Your task to perform on an android device: turn on improve location accuracy Image 0: 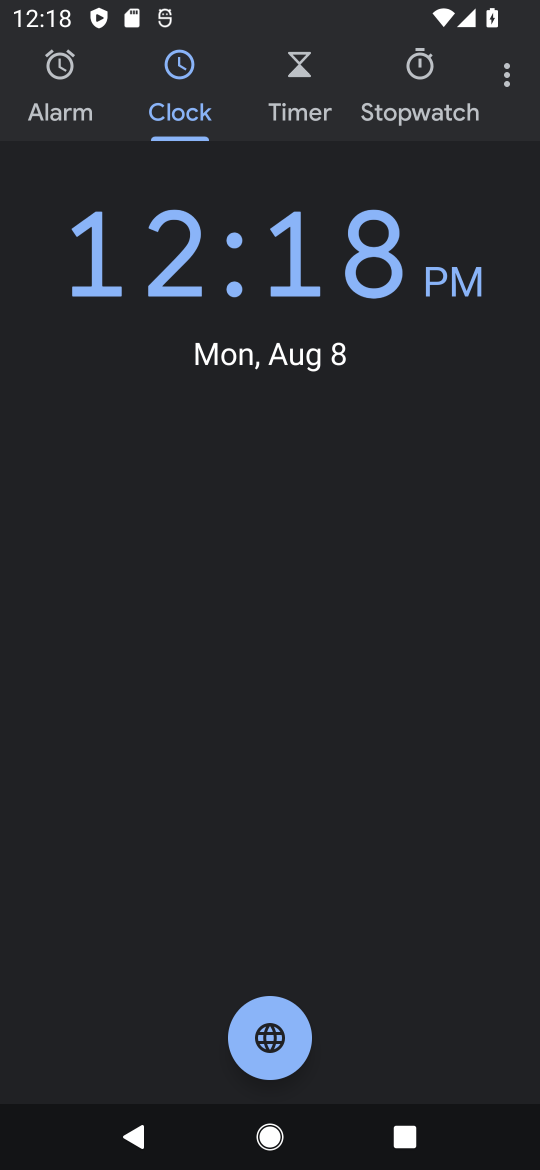
Step 0: press back button
Your task to perform on an android device: turn on improve location accuracy Image 1: 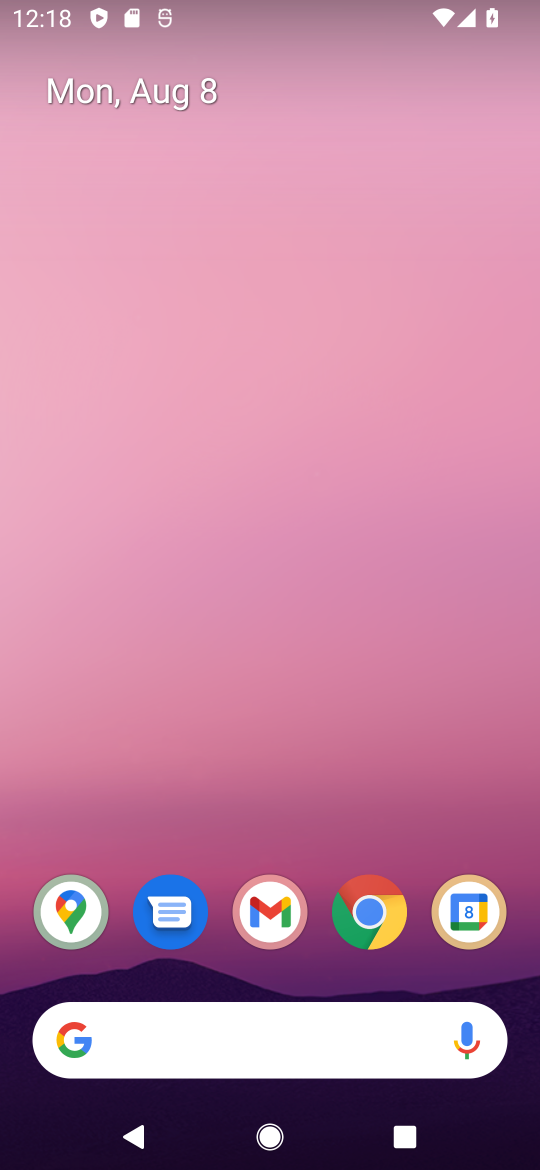
Step 1: drag from (237, 939) to (259, 110)
Your task to perform on an android device: turn on improve location accuracy Image 2: 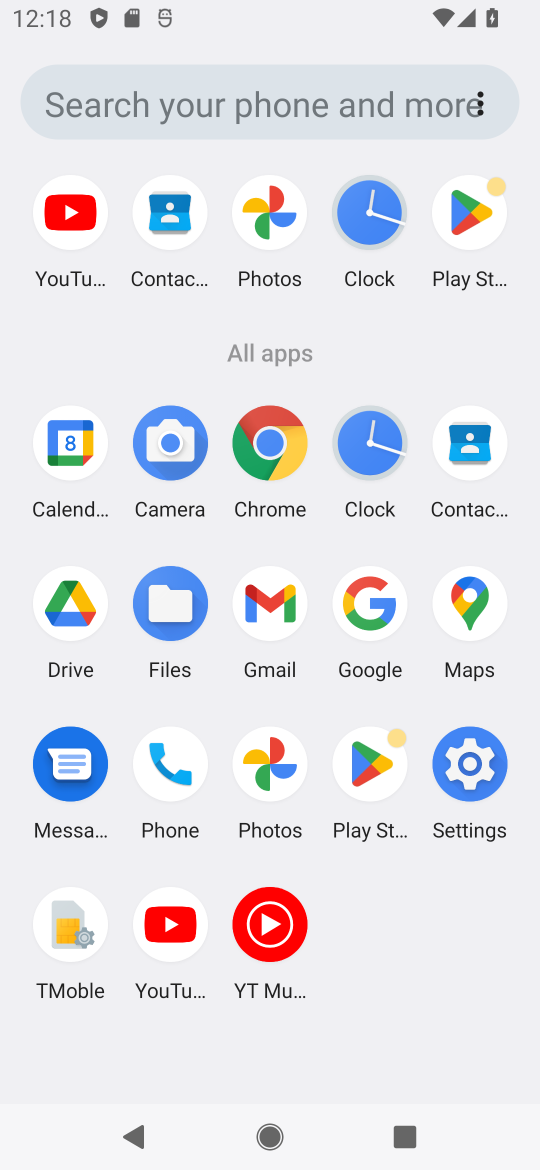
Step 2: click (468, 784)
Your task to perform on an android device: turn on improve location accuracy Image 3: 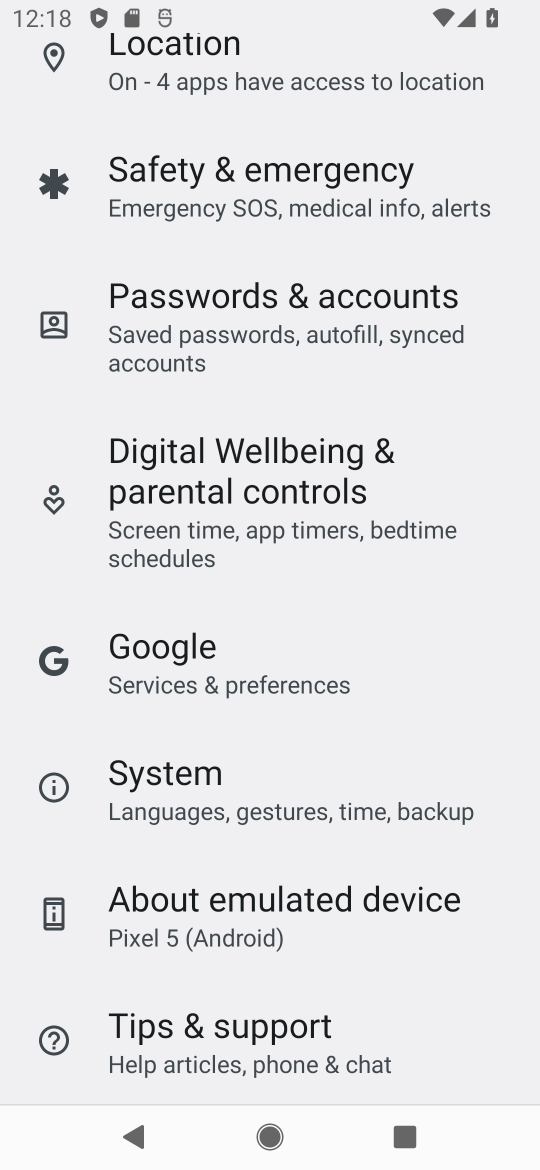
Step 3: click (255, 69)
Your task to perform on an android device: turn on improve location accuracy Image 4: 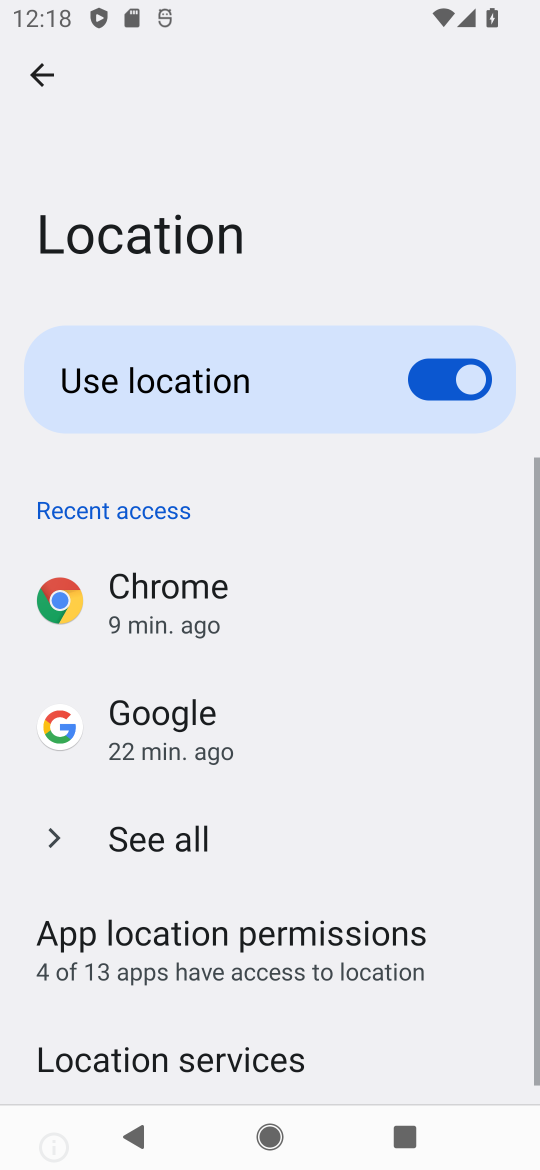
Step 4: drag from (256, 1026) to (368, 291)
Your task to perform on an android device: turn on improve location accuracy Image 5: 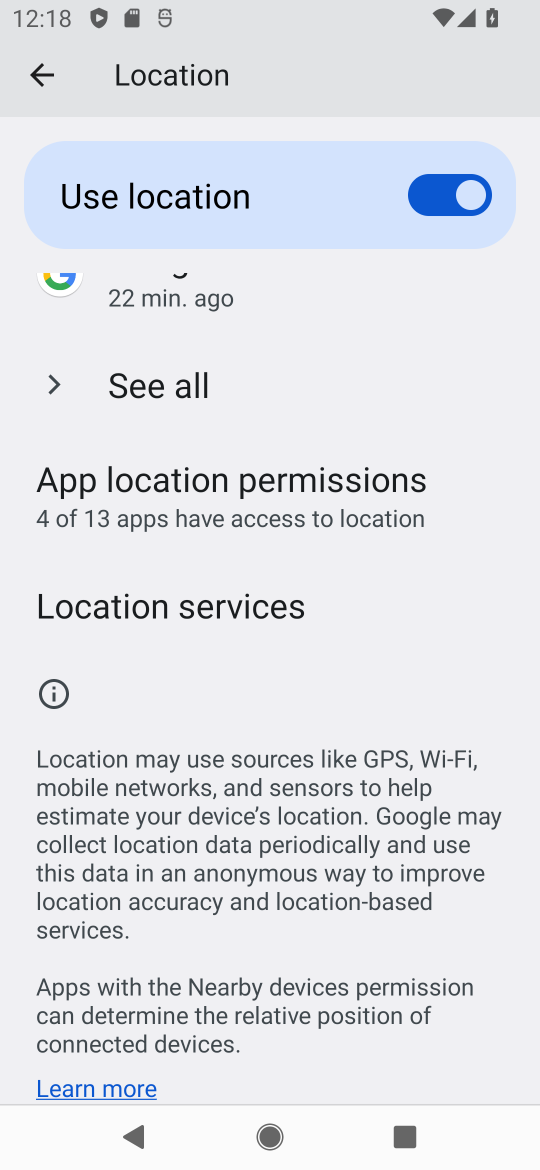
Step 5: click (114, 592)
Your task to perform on an android device: turn on improve location accuracy Image 6: 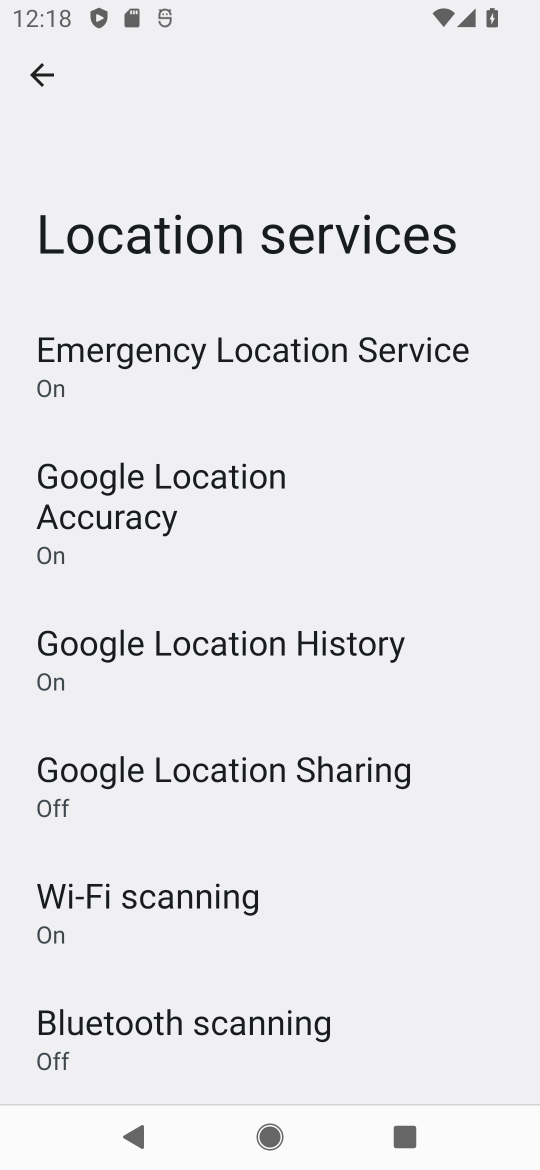
Step 6: click (148, 499)
Your task to perform on an android device: turn on improve location accuracy Image 7: 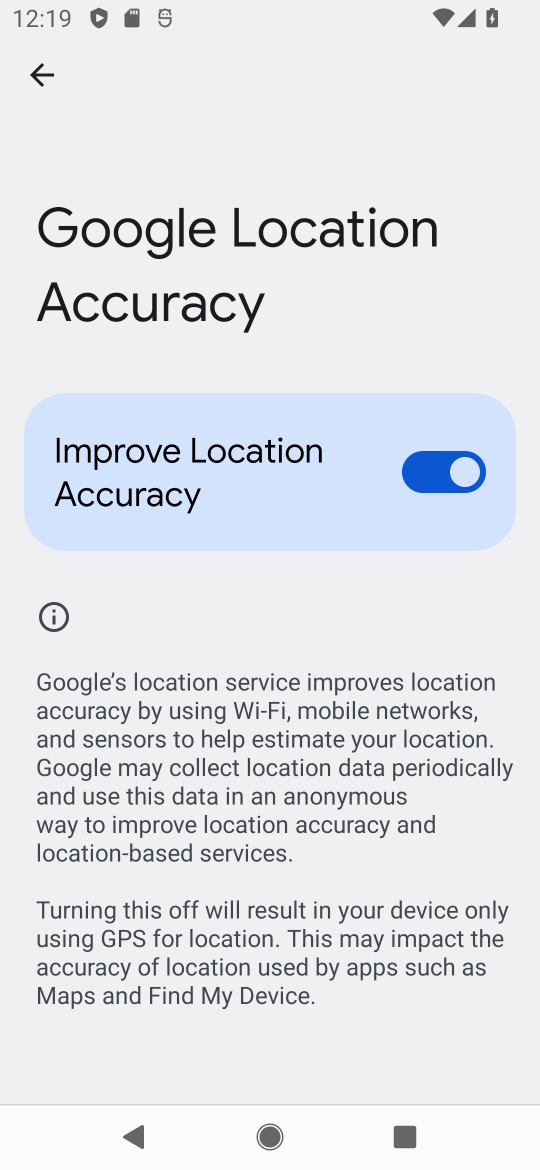
Step 7: task complete